Your task to perform on an android device: Open calendar and show me the fourth week of next month Image 0: 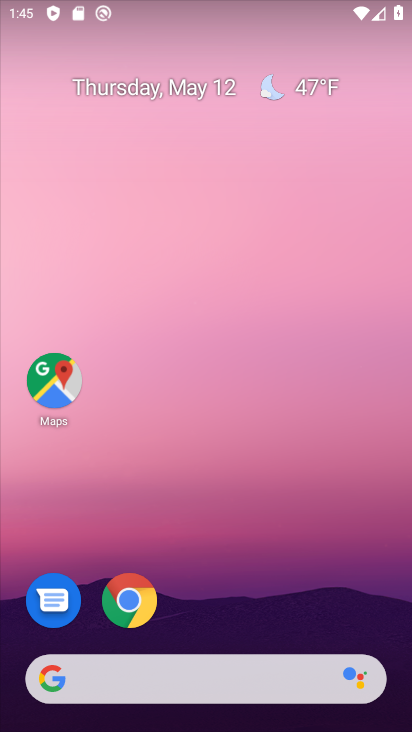
Step 0: drag from (259, 473) to (294, 43)
Your task to perform on an android device: Open calendar and show me the fourth week of next month Image 1: 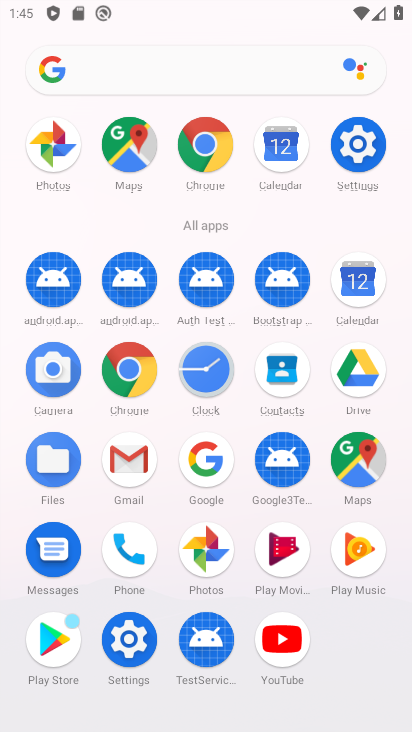
Step 1: click (347, 292)
Your task to perform on an android device: Open calendar and show me the fourth week of next month Image 2: 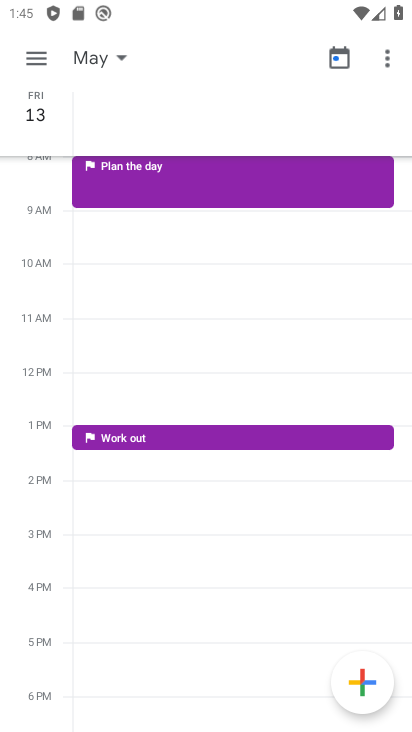
Step 2: click (116, 63)
Your task to perform on an android device: Open calendar and show me the fourth week of next month Image 3: 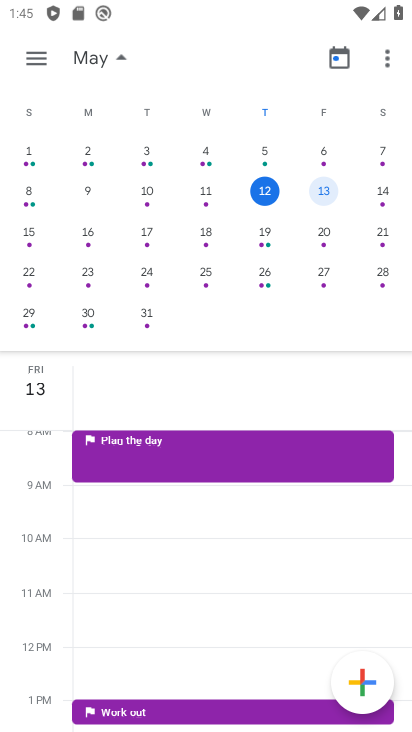
Step 3: drag from (394, 236) to (27, 216)
Your task to perform on an android device: Open calendar and show me the fourth week of next month Image 4: 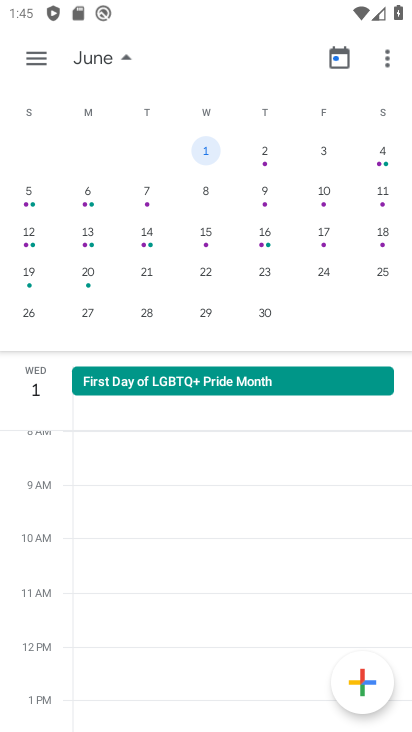
Step 4: click (36, 54)
Your task to perform on an android device: Open calendar and show me the fourth week of next month Image 5: 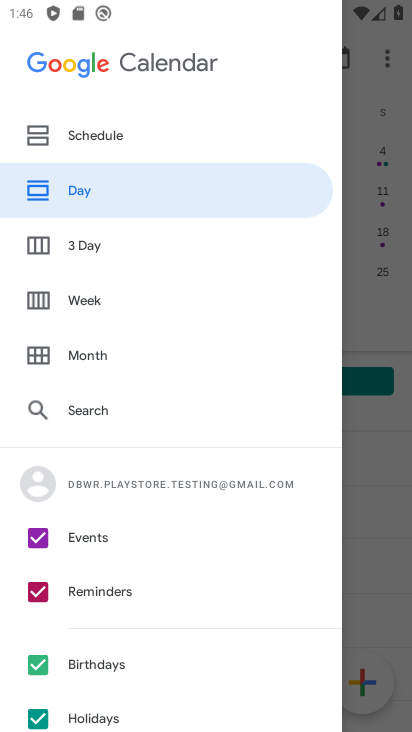
Step 5: click (102, 297)
Your task to perform on an android device: Open calendar and show me the fourth week of next month Image 6: 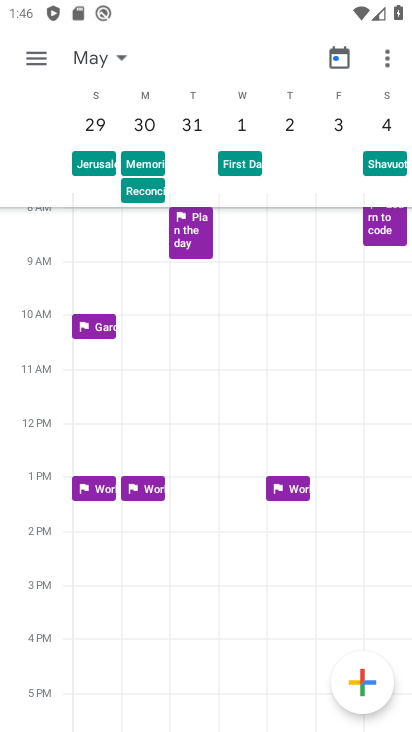
Step 6: task complete